Your task to perform on an android device: Open display settings Image 0: 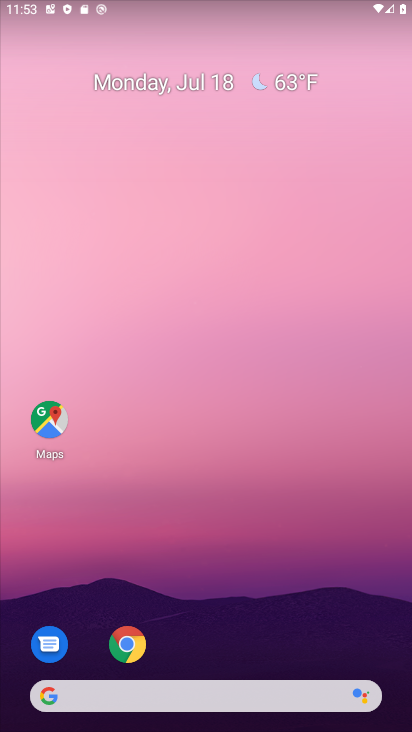
Step 0: drag from (227, 726) to (207, 151)
Your task to perform on an android device: Open display settings Image 1: 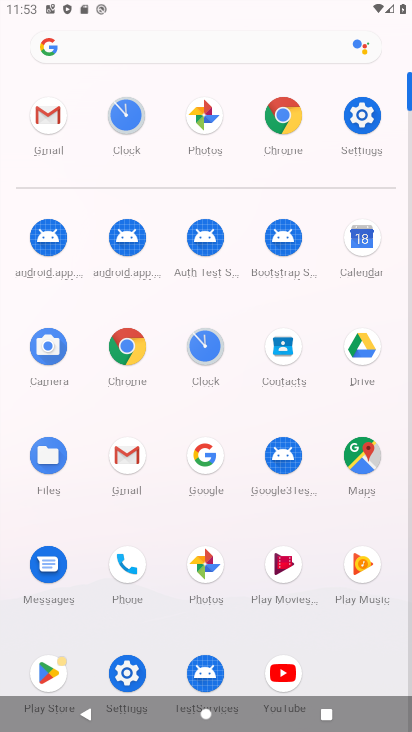
Step 1: click (363, 110)
Your task to perform on an android device: Open display settings Image 2: 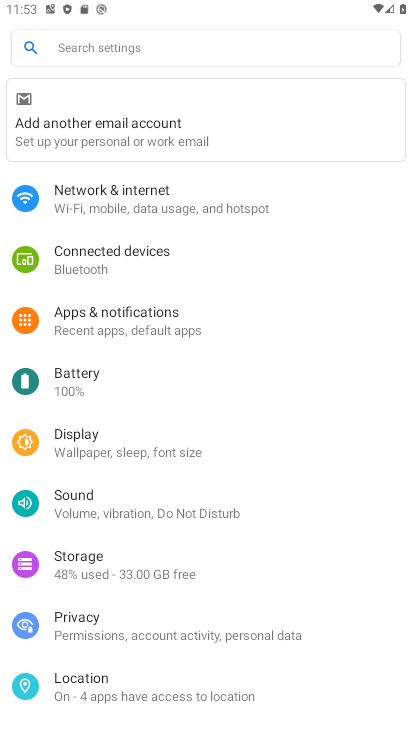
Step 2: click (79, 440)
Your task to perform on an android device: Open display settings Image 3: 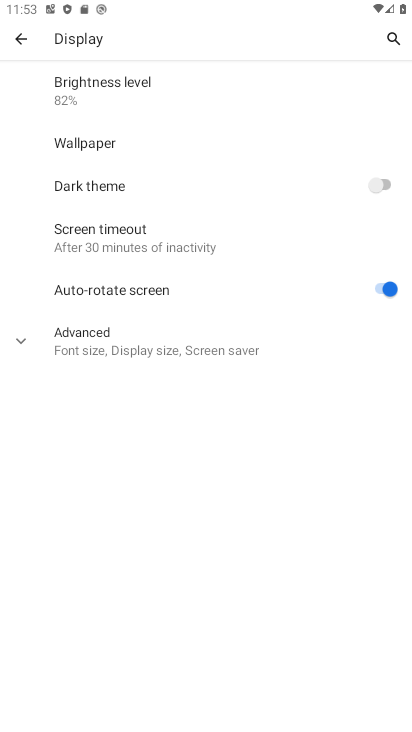
Step 3: task complete